Your task to perform on an android device: change your default location settings in chrome Image 0: 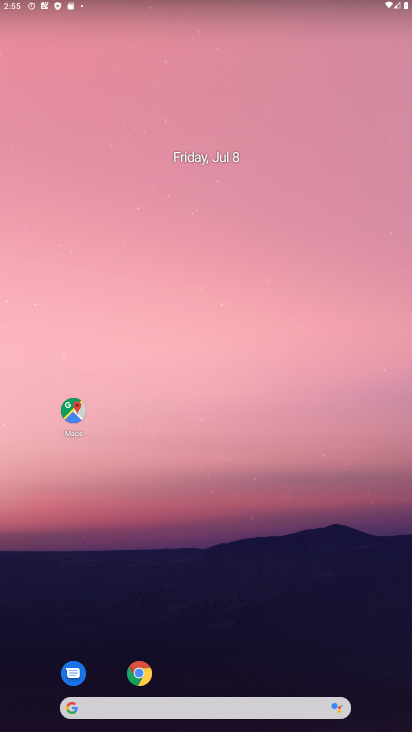
Step 0: click (149, 676)
Your task to perform on an android device: change your default location settings in chrome Image 1: 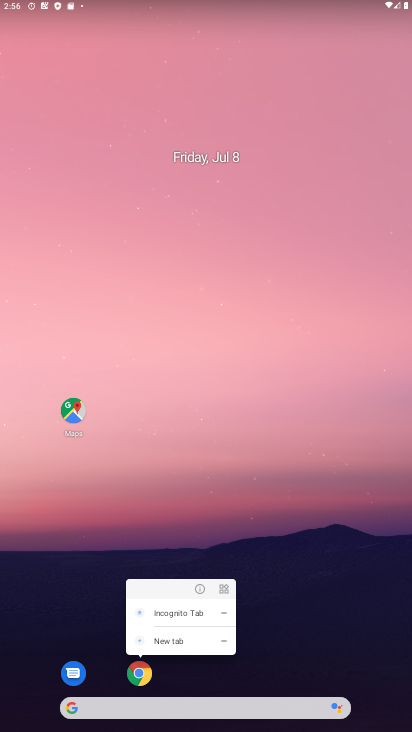
Step 1: click (139, 674)
Your task to perform on an android device: change your default location settings in chrome Image 2: 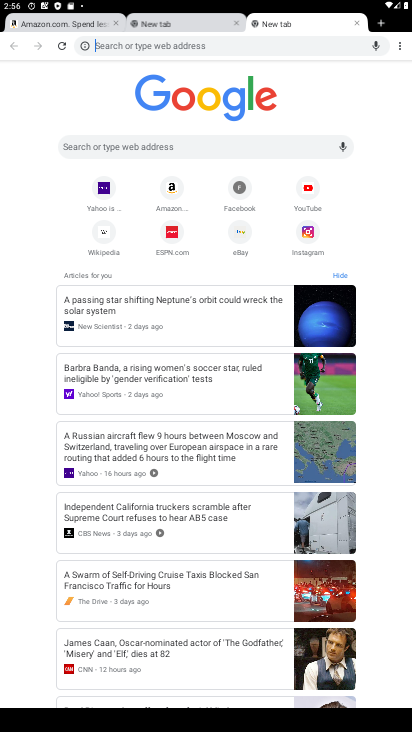
Step 2: click (402, 51)
Your task to perform on an android device: change your default location settings in chrome Image 3: 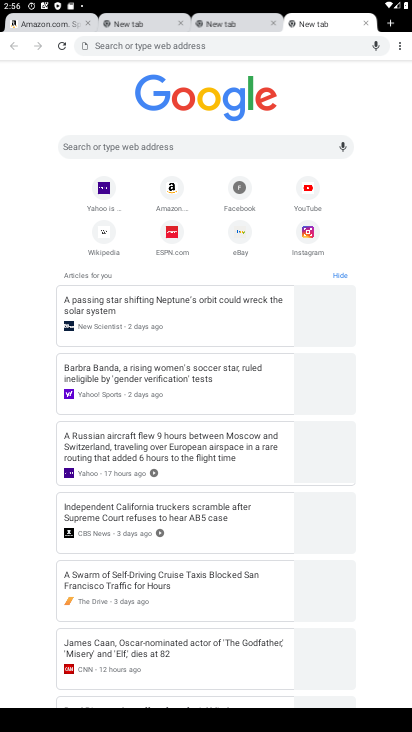
Step 3: click (401, 49)
Your task to perform on an android device: change your default location settings in chrome Image 4: 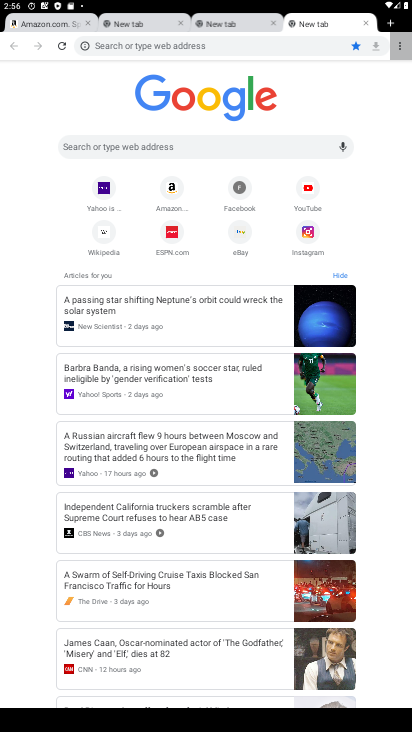
Step 4: click (401, 49)
Your task to perform on an android device: change your default location settings in chrome Image 5: 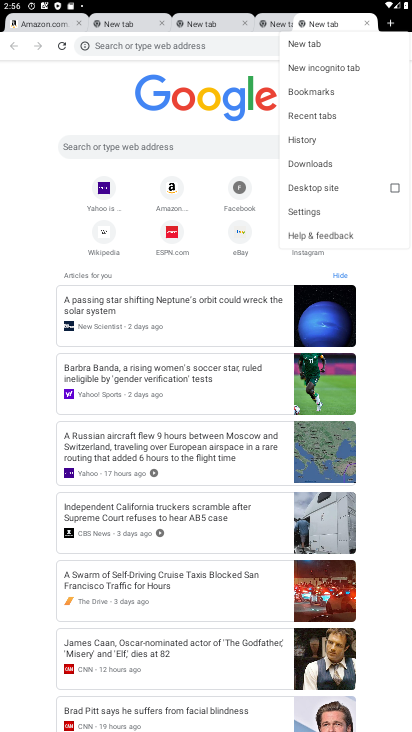
Step 5: click (401, 49)
Your task to perform on an android device: change your default location settings in chrome Image 6: 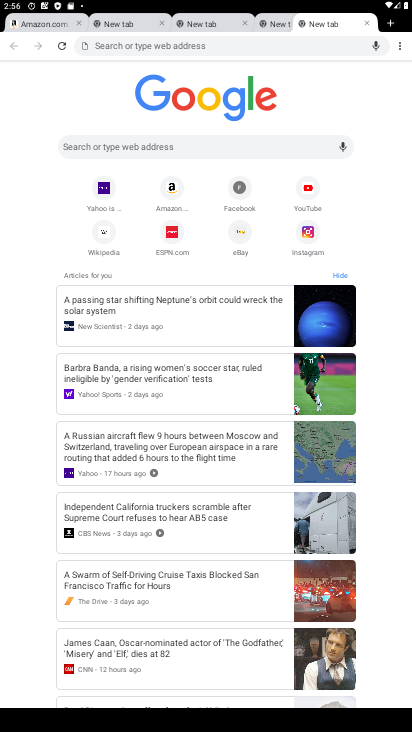
Step 6: click (401, 49)
Your task to perform on an android device: change your default location settings in chrome Image 7: 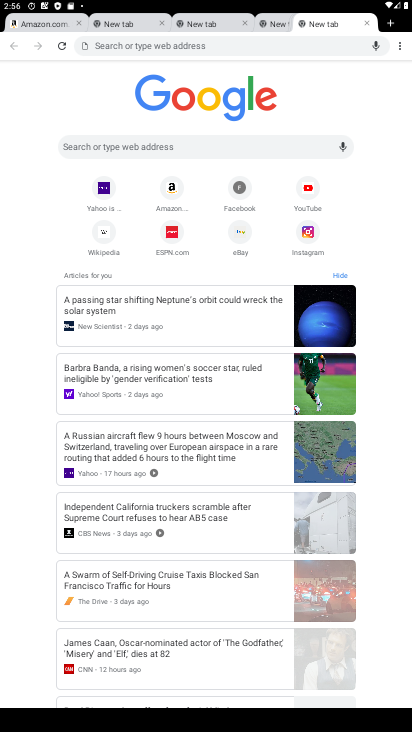
Step 7: click (401, 49)
Your task to perform on an android device: change your default location settings in chrome Image 8: 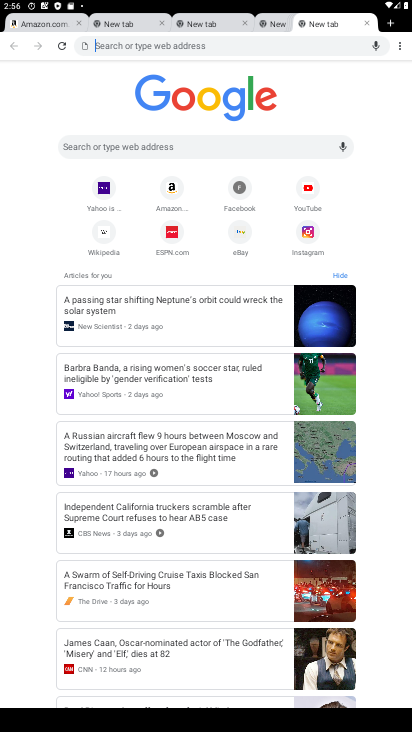
Step 8: click (370, 18)
Your task to perform on an android device: change your default location settings in chrome Image 9: 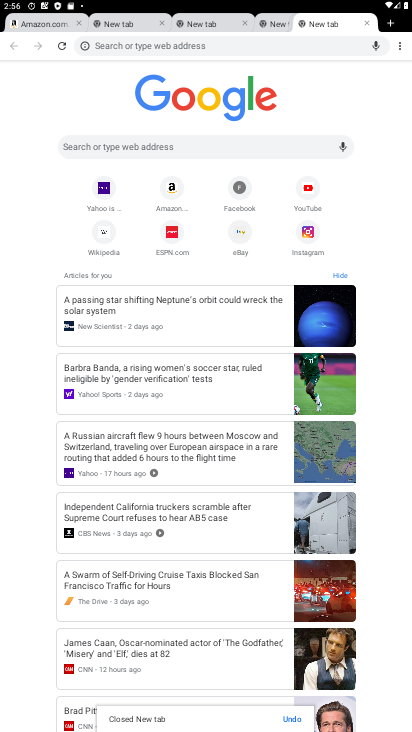
Step 9: click (370, 19)
Your task to perform on an android device: change your default location settings in chrome Image 10: 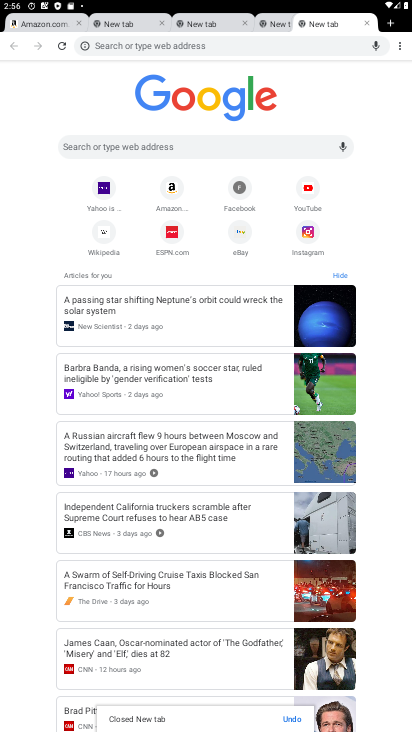
Step 10: click (369, 24)
Your task to perform on an android device: change your default location settings in chrome Image 11: 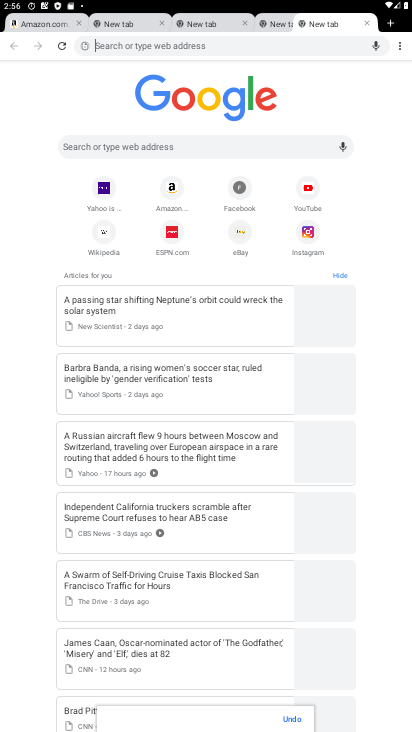
Step 11: click (369, 24)
Your task to perform on an android device: change your default location settings in chrome Image 12: 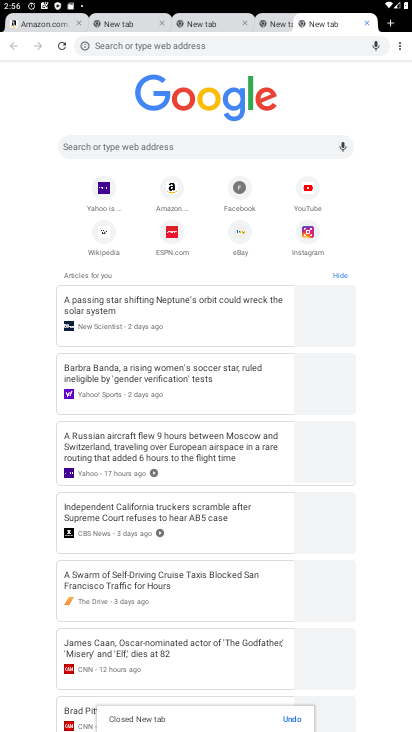
Step 12: click (369, 24)
Your task to perform on an android device: change your default location settings in chrome Image 13: 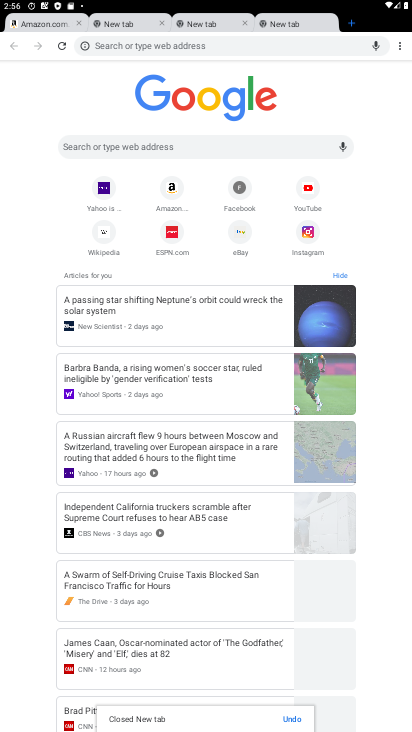
Step 13: click (369, 24)
Your task to perform on an android device: change your default location settings in chrome Image 14: 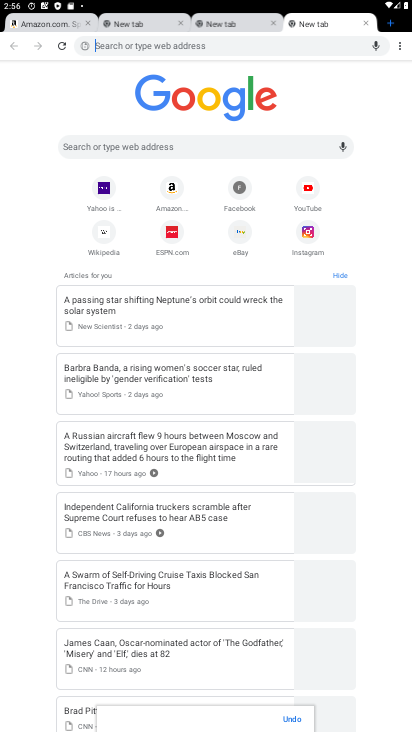
Step 14: click (369, 24)
Your task to perform on an android device: change your default location settings in chrome Image 15: 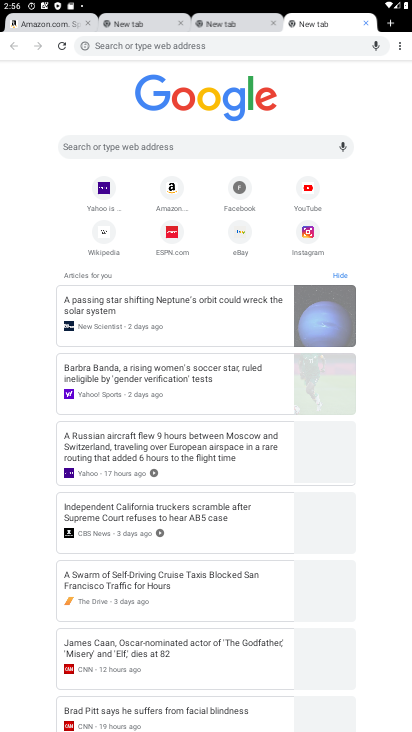
Step 15: click (369, 24)
Your task to perform on an android device: change your default location settings in chrome Image 16: 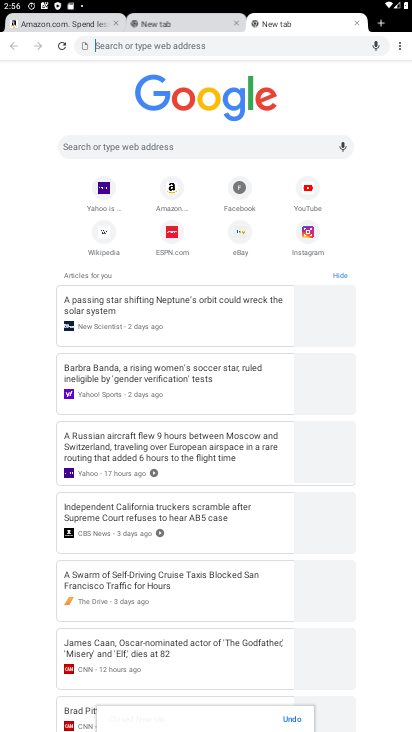
Step 16: click (369, 24)
Your task to perform on an android device: change your default location settings in chrome Image 17: 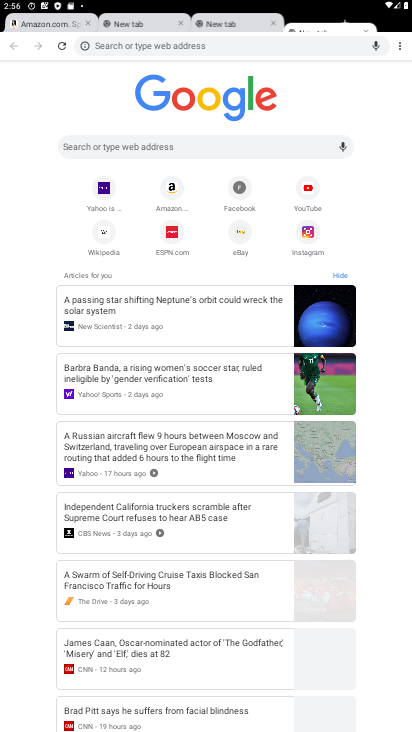
Step 17: click (369, 24)
Your task to perform on an android device: change your default location settings in chrome Image 18: 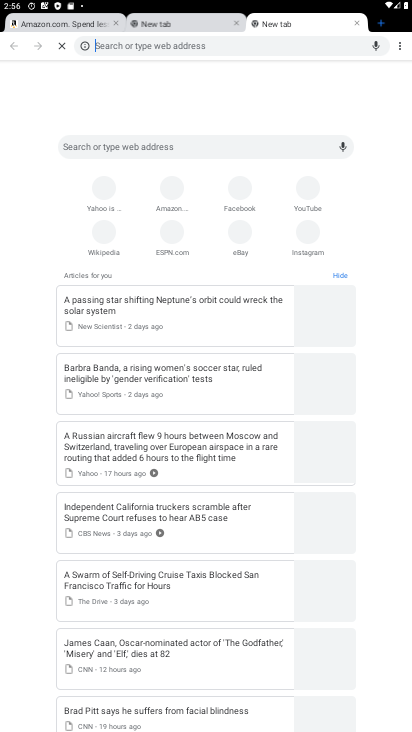
Step 18: click (369, 24)
Your task to perform on an android device: change your default location settings in chrome Image 19: 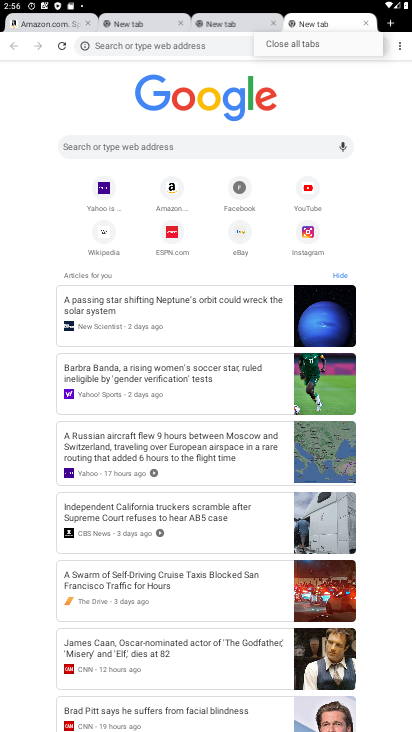
Step 19: click (369, 24)
Your task to perform on an android device: change your default location settings in chrome Image 20: 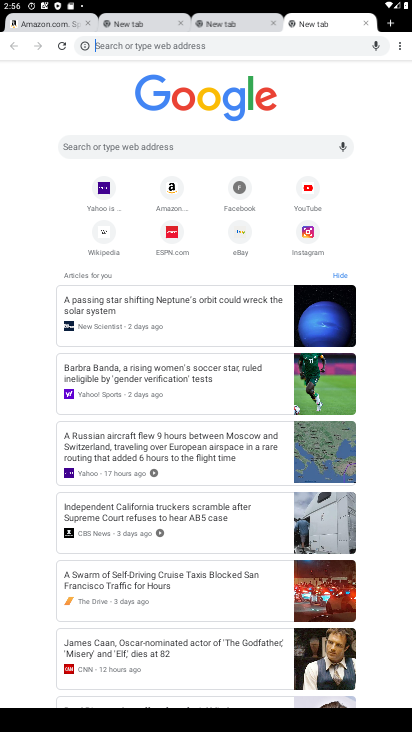
Step 20: click (369, 24)
Your task to perform on an android device: change your default location settings in chrome Image 21: 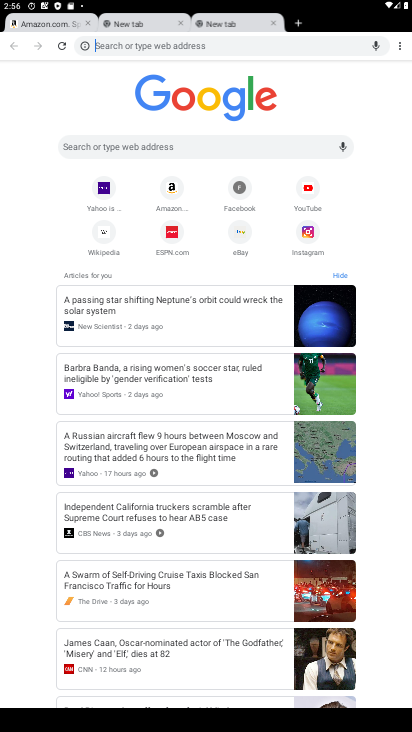
Step 21: click (364, 23)
Your task to perform on an android device: change your default location settings in chrome Image 22: 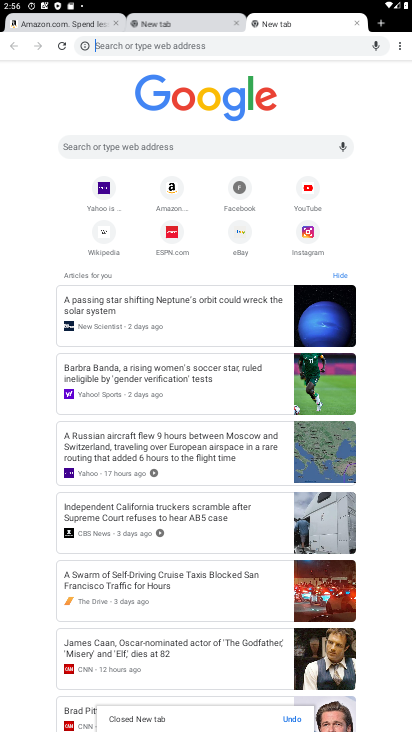
Step 22: click (355, 24)
Your task to perform on an android device: change your default location settings in chrome Image 23: 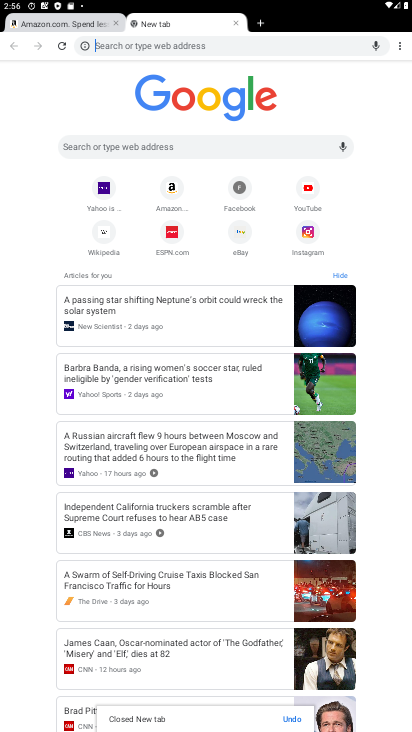
Step 23: click (238, 22)
Your task to perform on an android device: change your default location settings in chrome Image 24: 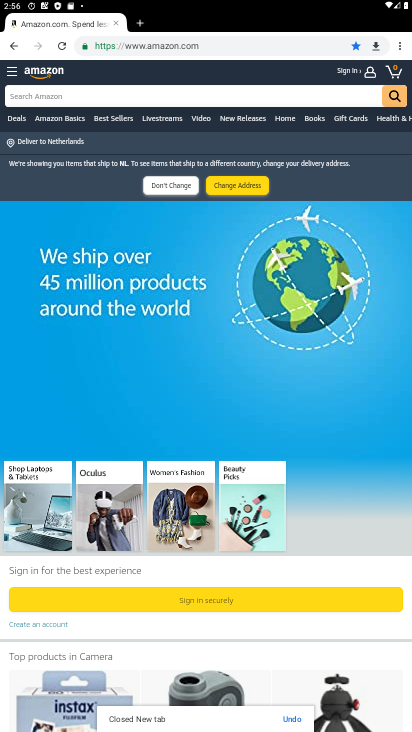
Step 24: click (119, 21)
Your task to perform on an android device: change your default location settings in chrome Image 25: 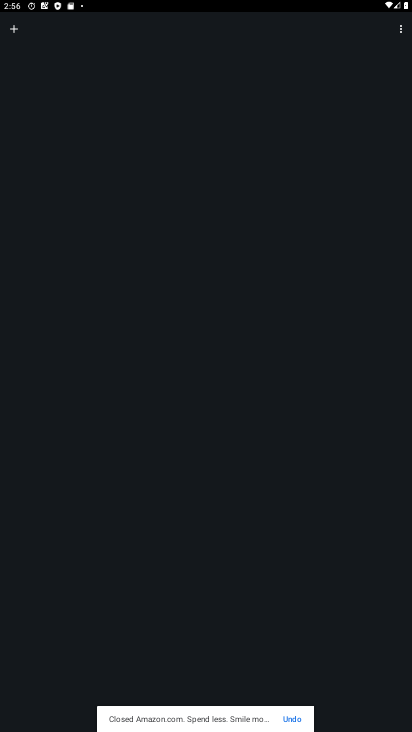
Step 25: click (404, 32)
Your task to perform on an android device: change your default location settings in chrome Image 26: 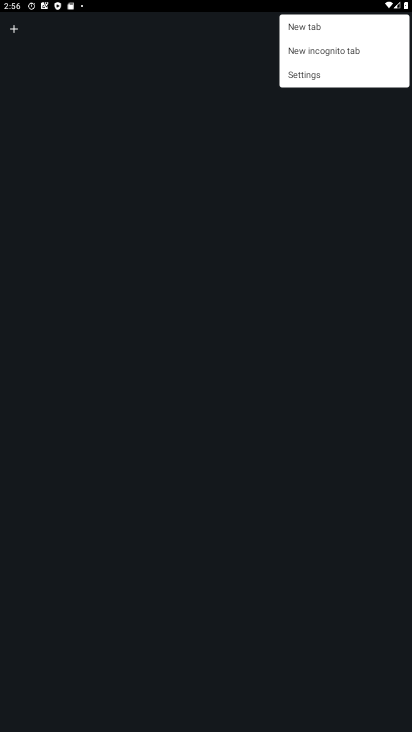
Step 26: click (344, 74)
Your task to perform on an android device: change your default location settings in chrome Image 27: 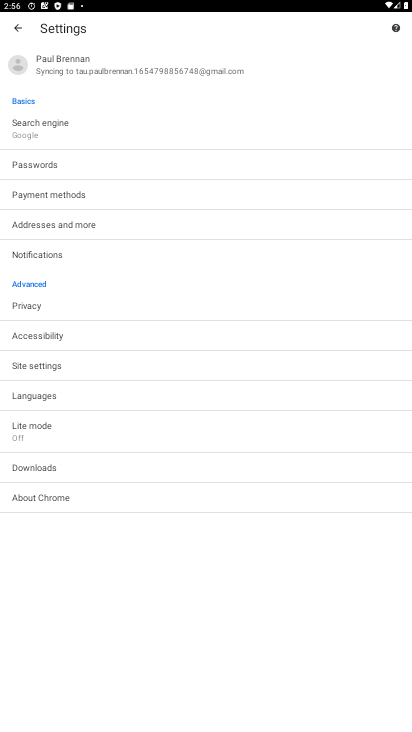
Step 27: click (22, 363)
Your task to perform on an android device: change your default location settings in chrome Image 28: 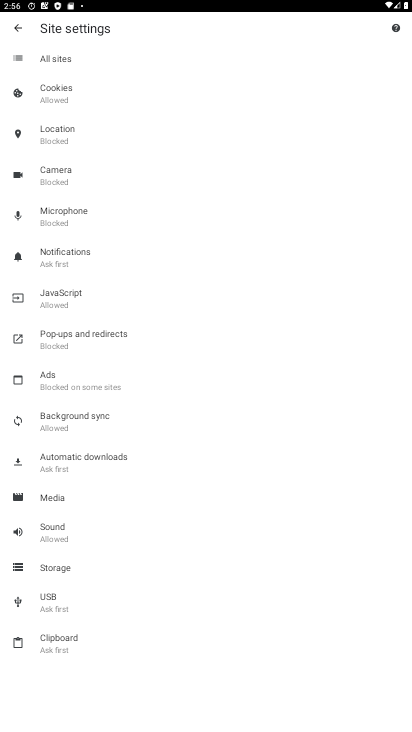
Step 28: click (84, 139)
Your task to perform on an android device: change your default location settings in chrome Image 29: 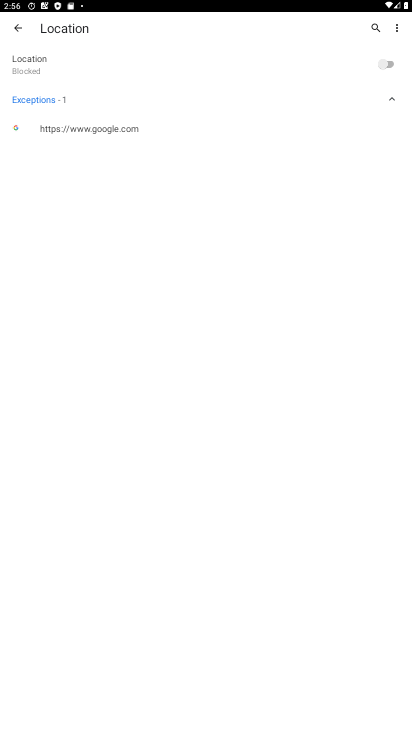
Step 29: click (387, 60)
Your task to perform on an android device: change your default location settings in chrome Image 30: 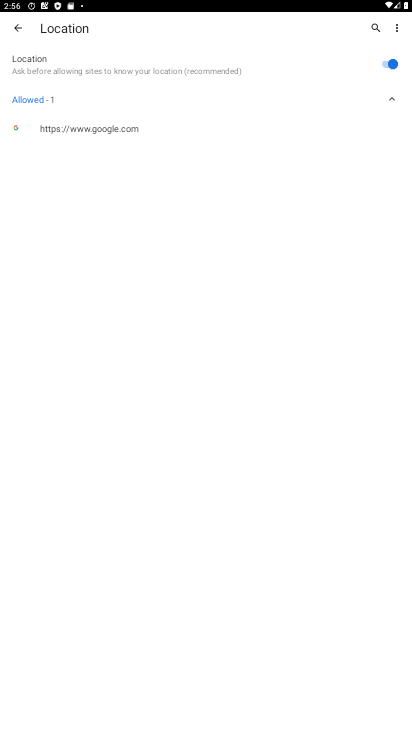
Step 30: task complete